Your task to perform on an android device: change the clock display to analog Image 0: 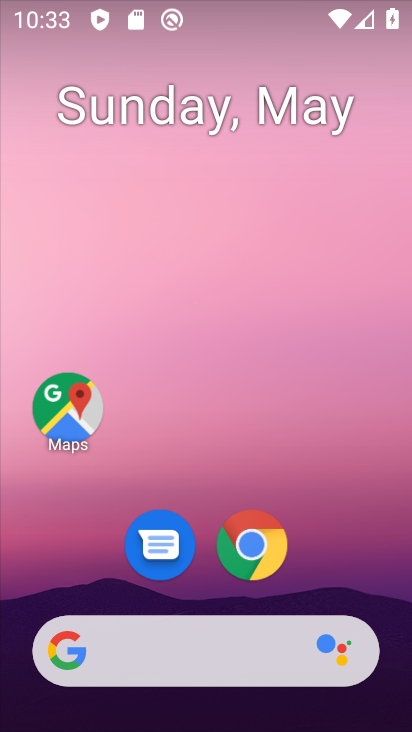
Step 0: drag from (402, 513) to (328, 132)
Your task to perform on an android device: change the clock display to analog Image 1: 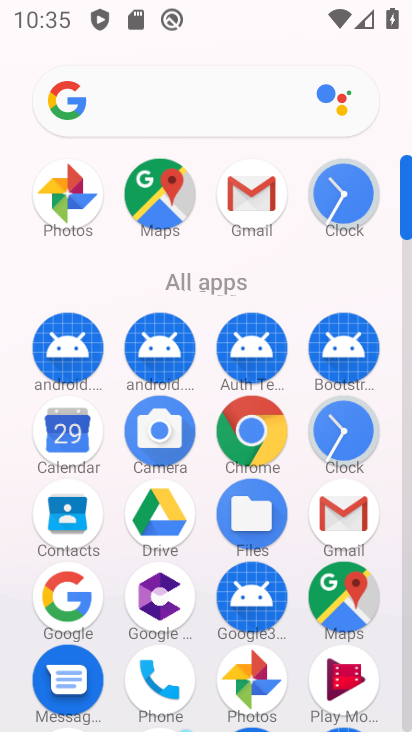
Step 1: click (341, 447)
Your task to perform on an android device: change the clock display to analog Image 2: 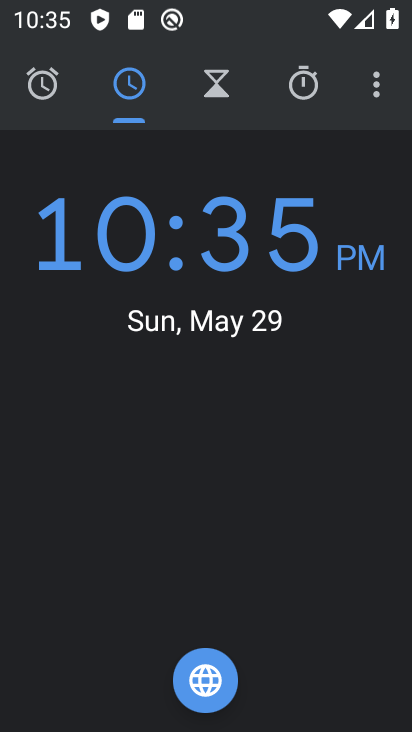
Step 2: click (372, 90)
Your task to perform on an android device: change the clock display to analog Image 3: 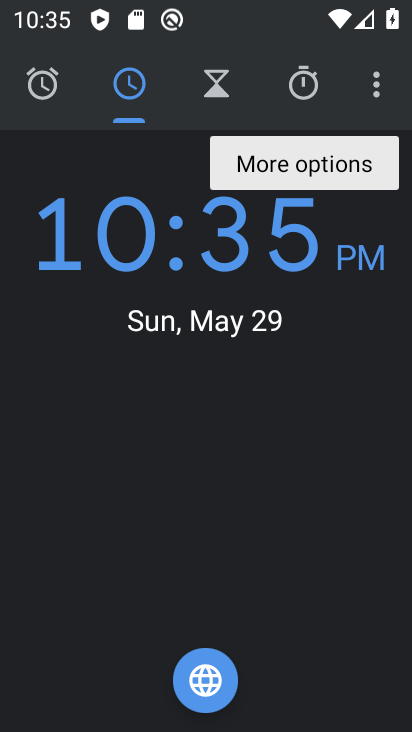
Step 3: click (377, 79)
Your task to perform on an android device: change the clock display to analog Image 4: 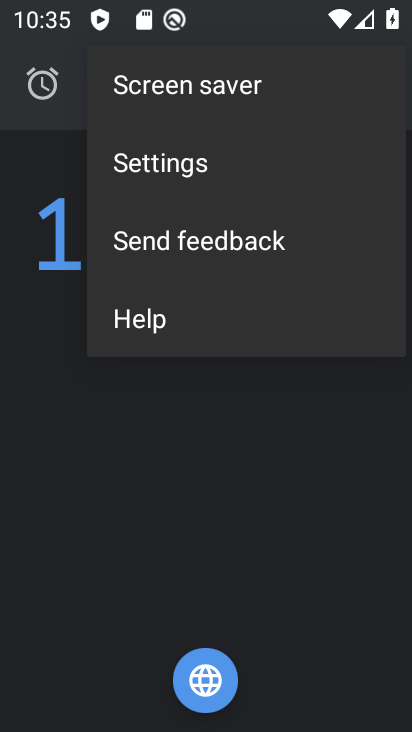
Step 4: click (230, 165)
Your task to perform on an android device: change the clock display to analog Image 5: 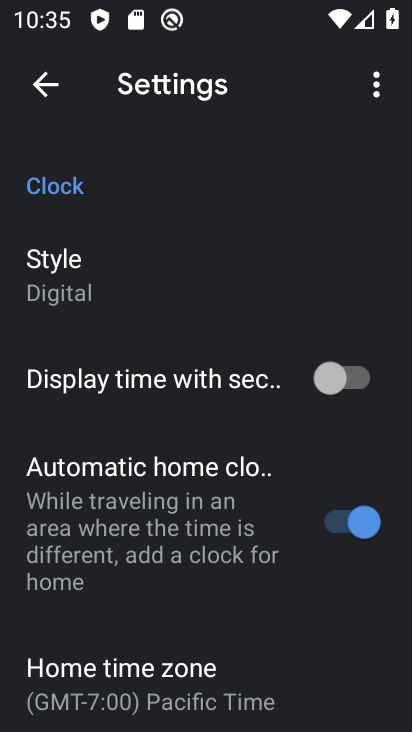
Step 5: click (120, 277)
Your task to perform on an android device: change the clock display to analog Image 6: 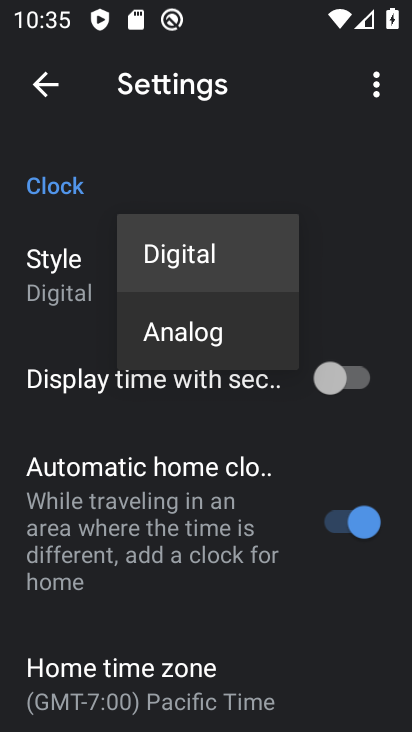
Step 6: click (193, 325)
Your task to perform on an android device: change the clock display to analog Image 7: 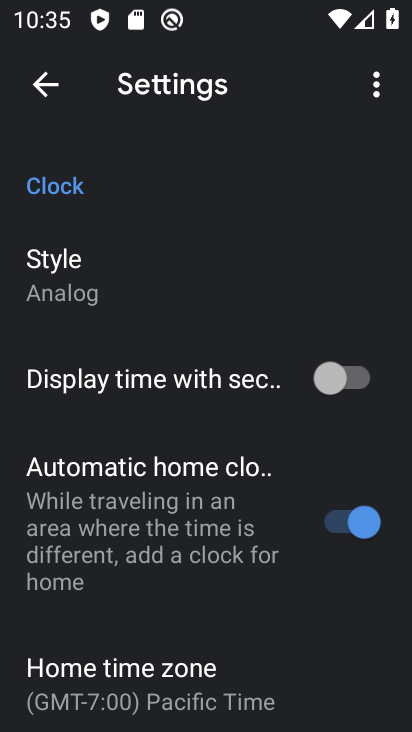
Step 7: task complete